Your task to perform on an android device: open device folders in google photos Image 0: 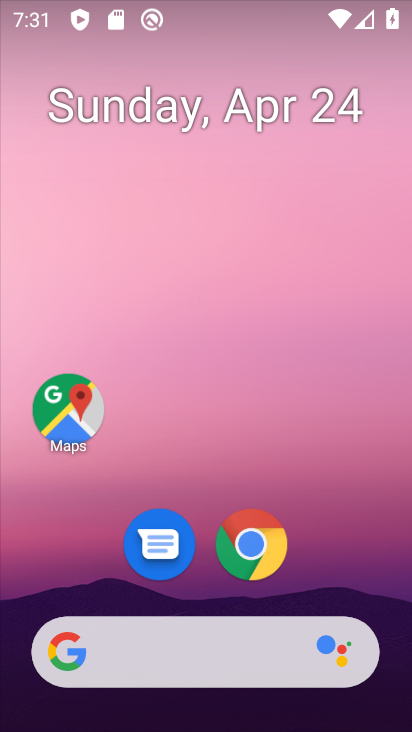
Step 0: press home button
Your task to perform on an android device: open device folders in google photos Image 1: 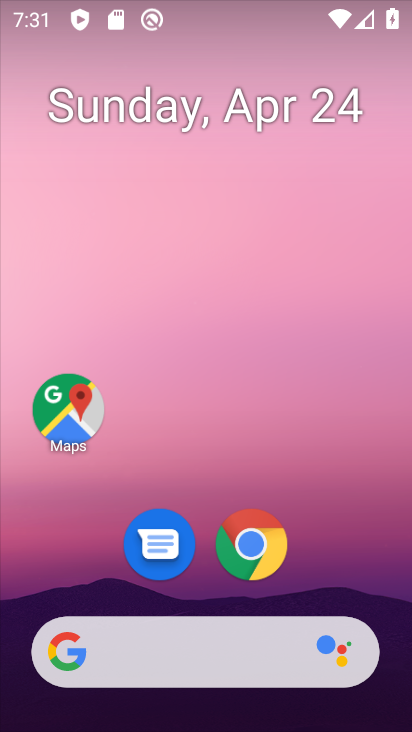
Step 1: drag from (165, 613) to (240, 193)
Your task to perform on an android device: open device folders in google photos Image 2: 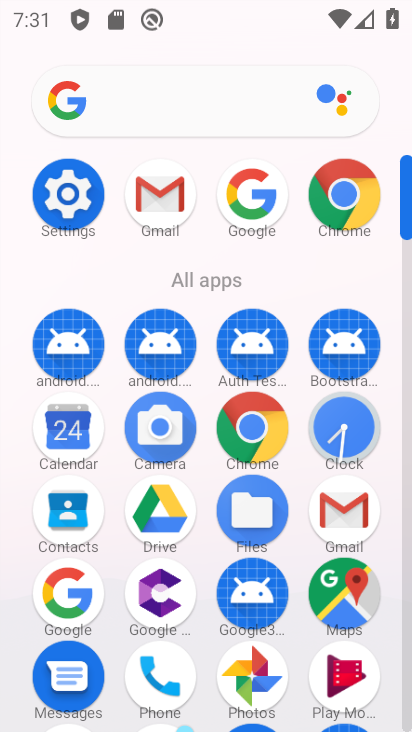
Step 2: click (251, 675)
Your task to perform on an android device: open device folders in google photos Image 3: 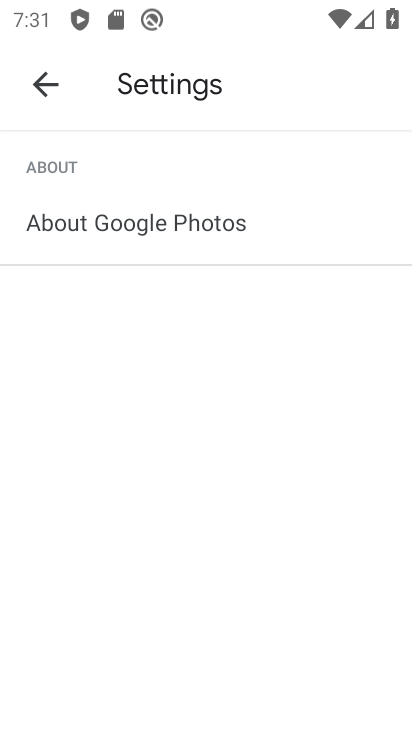
Step 3: click (42, 84)
Your task to perform on an android device: open device folders in google photos Image 4: 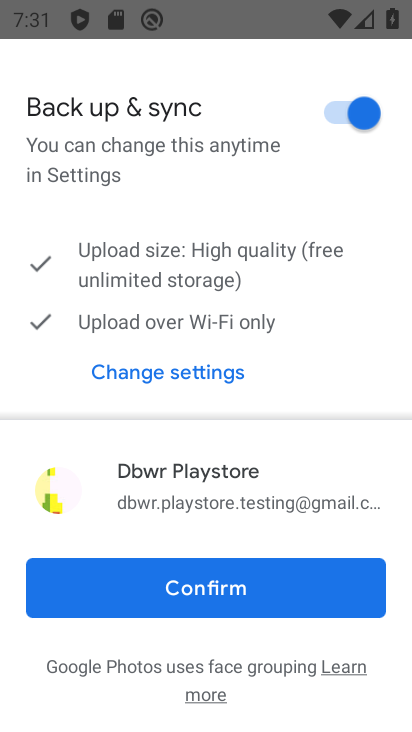
Step 4: click (207, 597)
Your task to perform on an android device: open device folders in google photos Image 5: 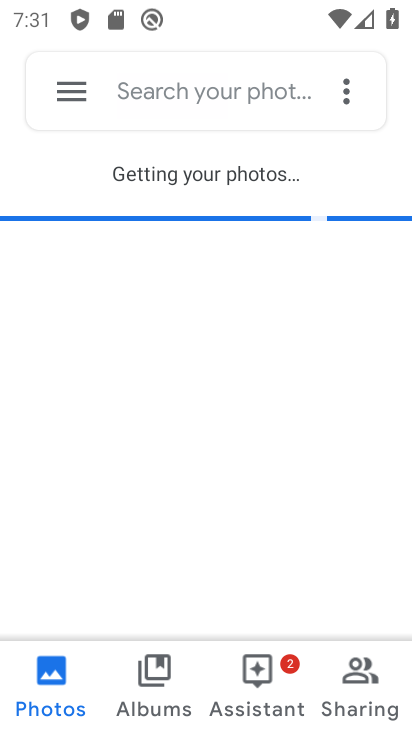
Step 5: click (67, 84)
Your task to perform on an android device: open device folders in google photos Image 6: 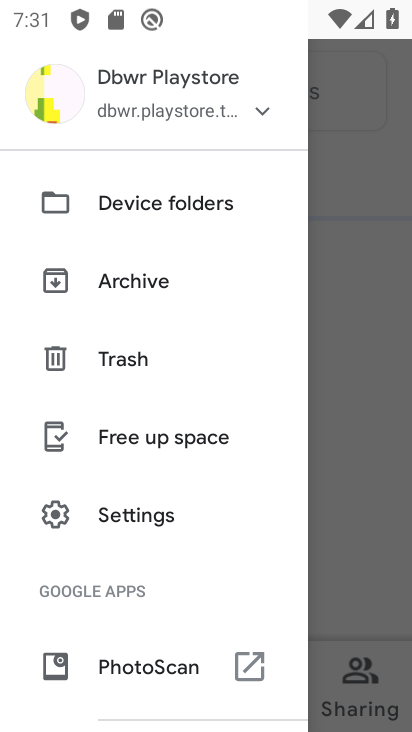
Step 6: click (159, 201)
Your task to perform on an android device: open device folders in google photos Image 7: 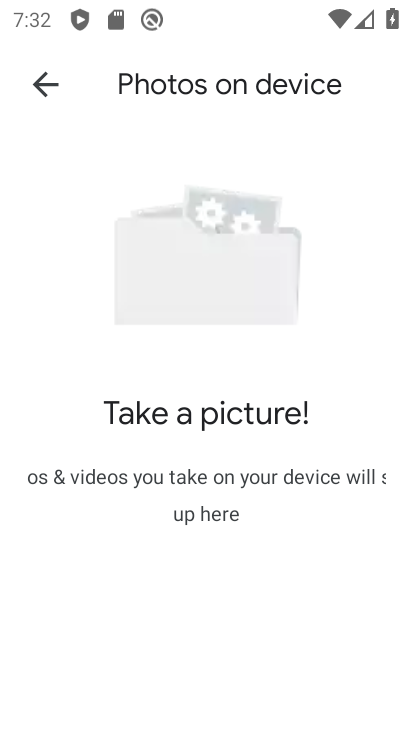
Step 7: task complete